Your task to perform on an android device: Open Reddit.com Image 0: 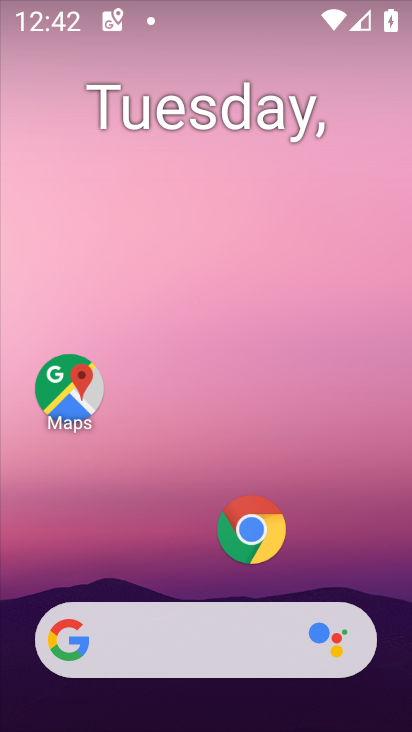
Step 0: drag from (264, 666) to (245, 116)
Your task to perform on an android device: Open Reddit.com Image 1: 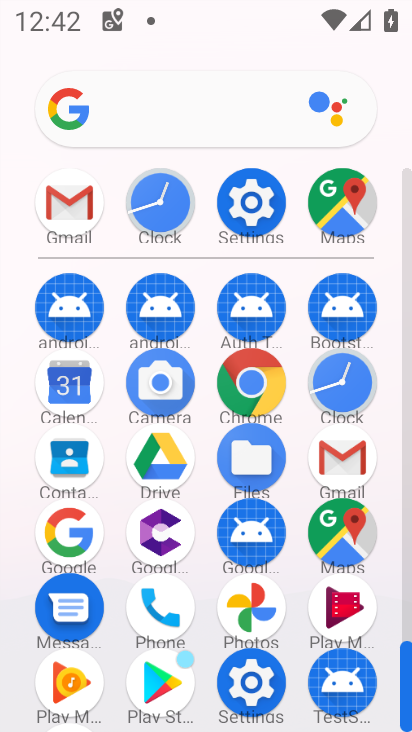
Step 1: click (246, 371)
Your task to perform on an android device: Open Reddit.com Image 2: 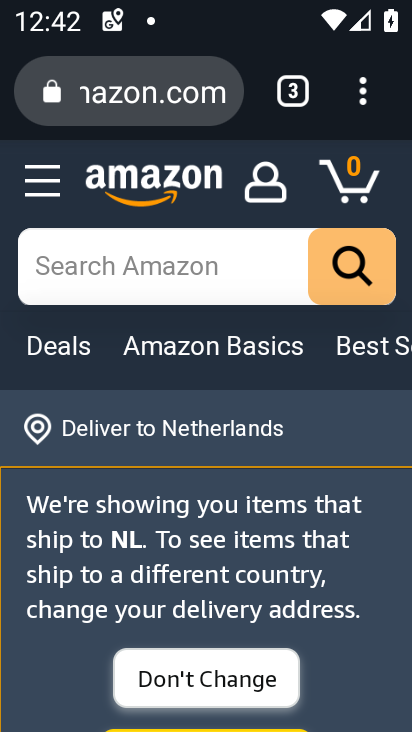
Step 2: click (286, 89)
Your task to perform on an android device: Open Reddit.com Image 3: 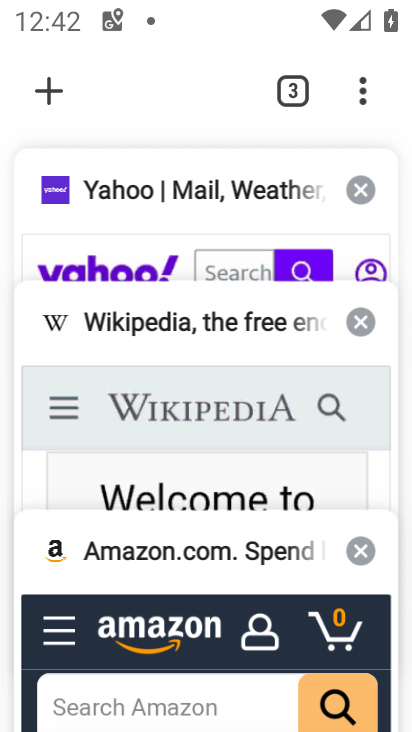
Step 3: click (58, 88)
Your task to perform on an android device: Open Reddit.com Image 4: 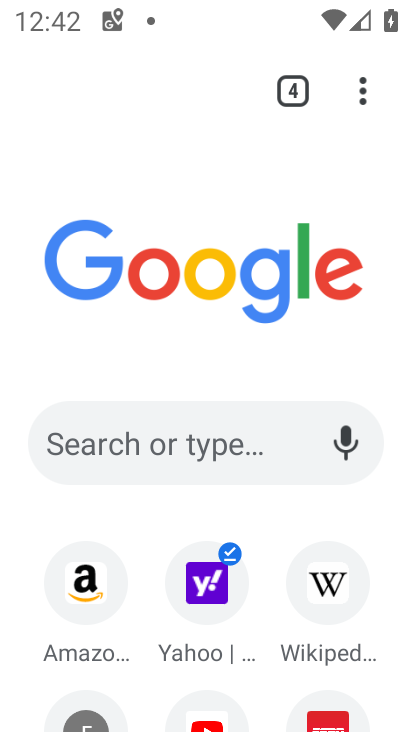
Step 4: click (124, 430)
Your task to perform on an android device: Open Reddit.com Image 5: 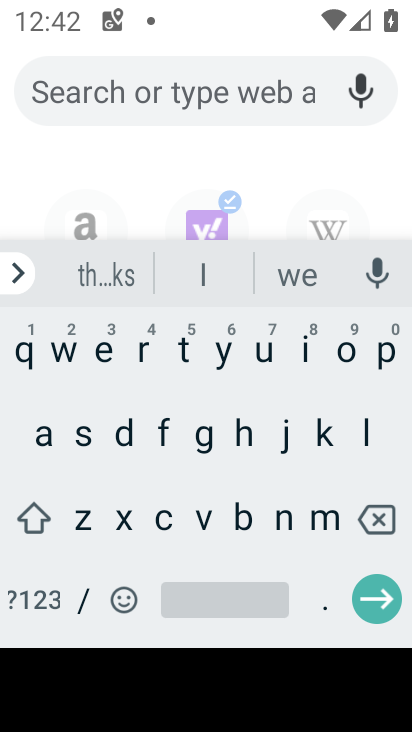
Step 5: click (138, 347)
Your task to perform on an android device: Open Reddit.com Image 6: 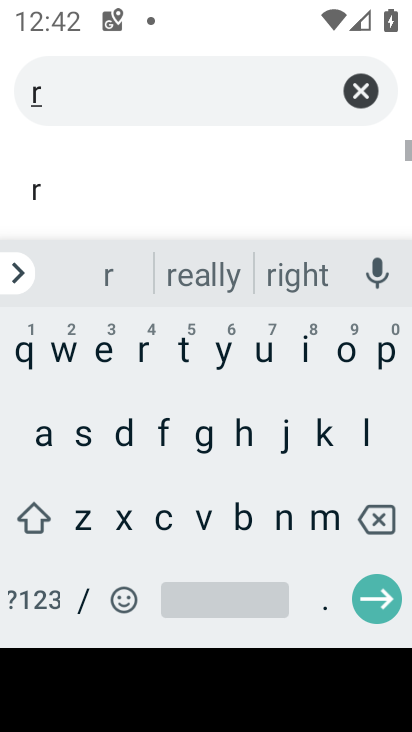
Step 6: click (99, 349)
Your task to perform on an android device: Open Reddit.com Image 7: 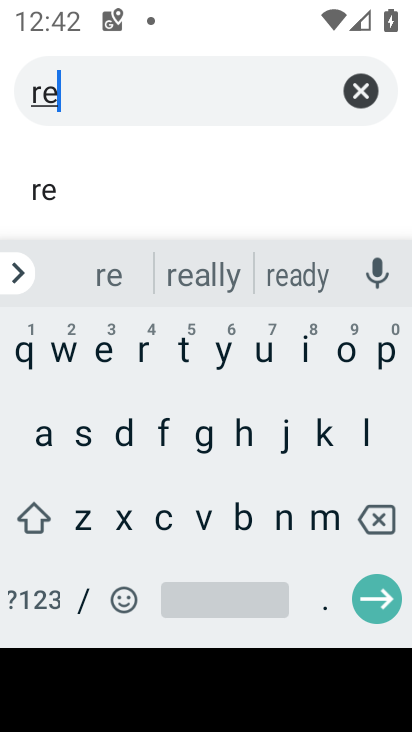
Step 7: click (131, 433)
Your task to perform on an android device: Open Reddit.com Image 8: 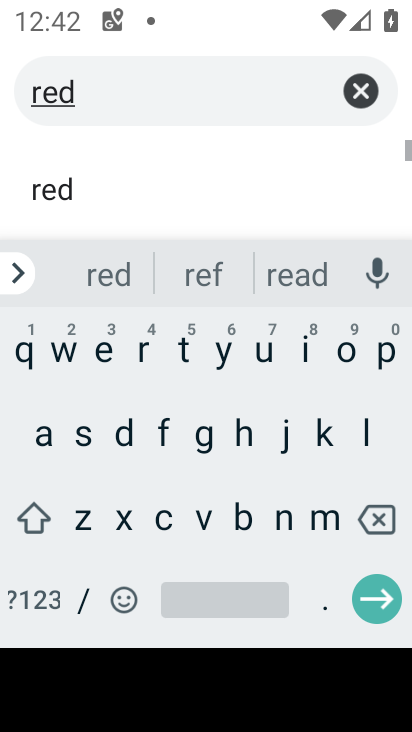
Step 8: click (131, 433)
Your task to perform on an android device: Open Reddit.com Image 9: 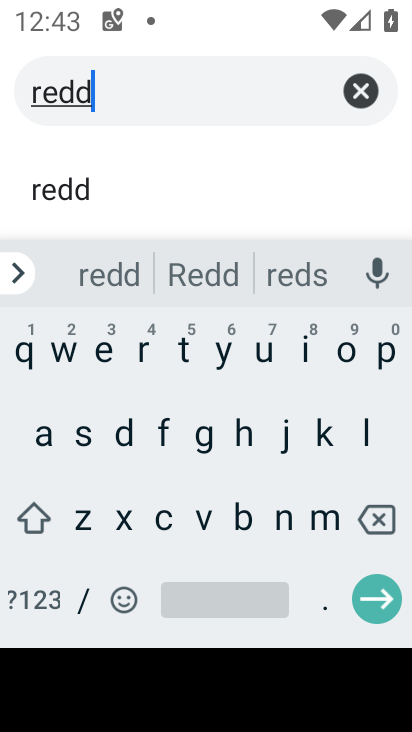
Step 9: click (312, 347)
Your task to perform on an android device: Open Reddit.com Image 10: 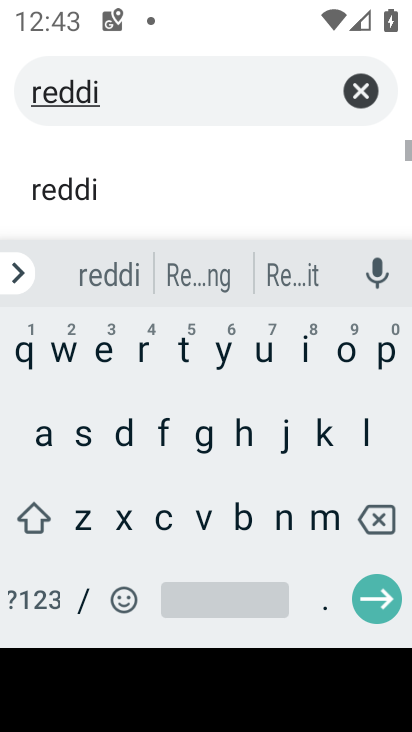
Step 10: click (191, 343)
Your task to perform on an android device: Open Reddit.com Image 11: 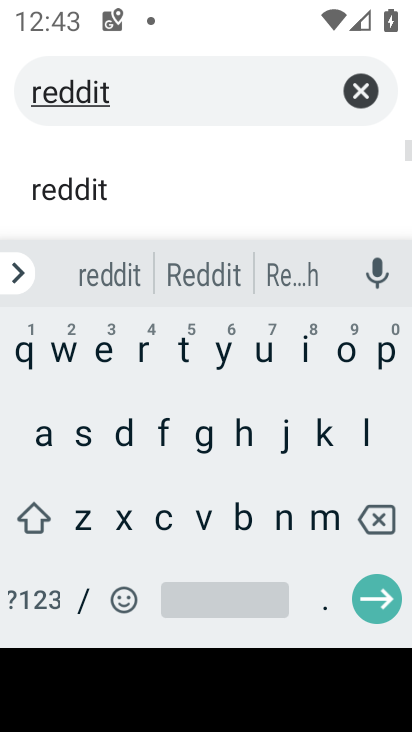
Step 11: click (144, 191)
Your task to perform on an android device: Open Reddit.com Image 12: 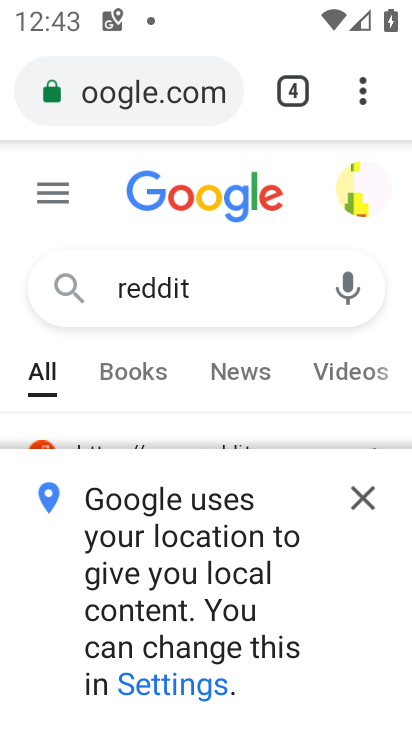
Step 12: click (359, 496)
Your task to perform on an android device: Open Reddit.com Image 13: 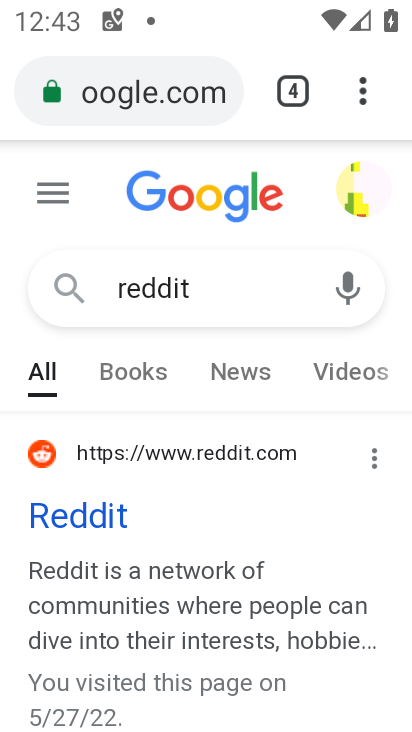
Step 13: click (84, 520)
Your task to perform on an android device: Open Reddit.com Image 14: 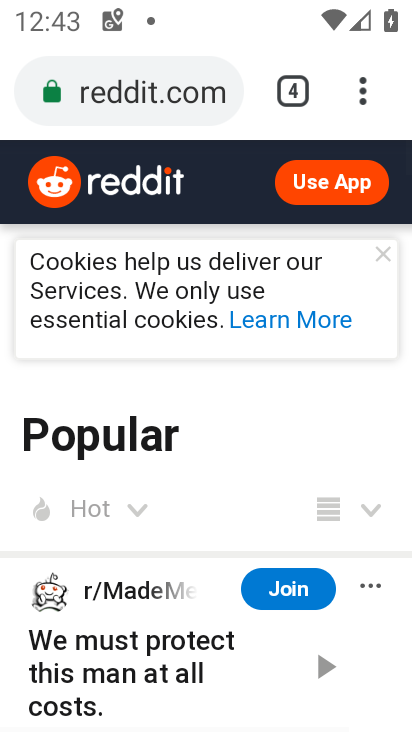
Step 14: task complete